Your task to perform on an android device: check data usage Image 0: 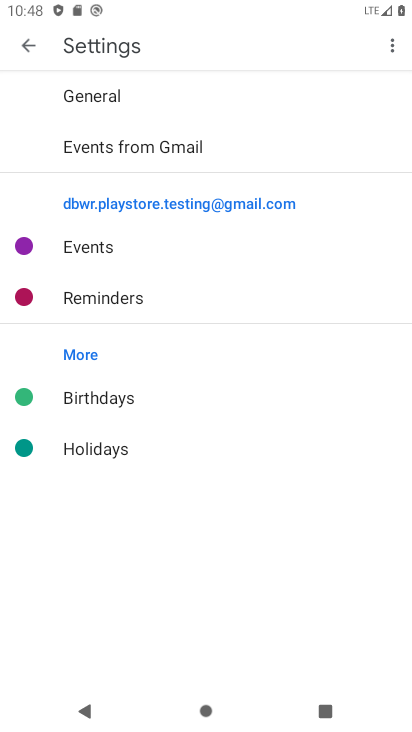
Step 0: press home button
Your task to perform on an android device: check data usage Image 1: 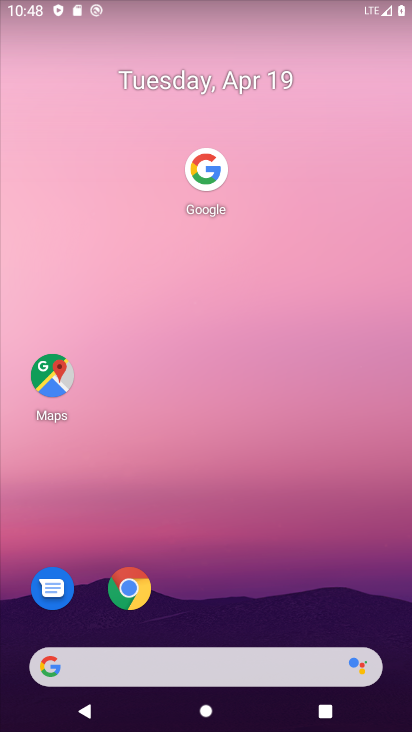
Step 1: drag from (216, 608) to (258, 1)
Your task to perform on an android device: check data usage Image 2: 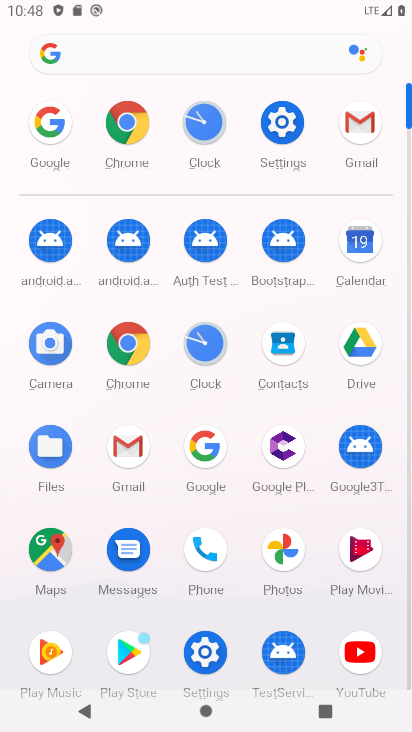
Step 2: click (288, 119)
Your task to perform on an android device: check data usage Image 3: 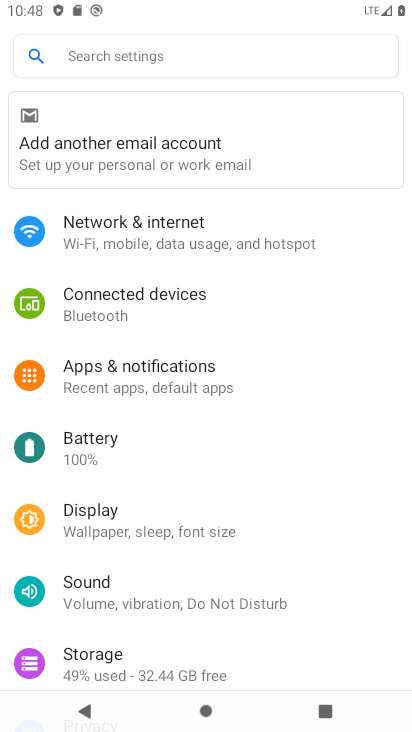
Step 3: click (139, 228)
Your task to perform on an android device: check data usage Image 4: 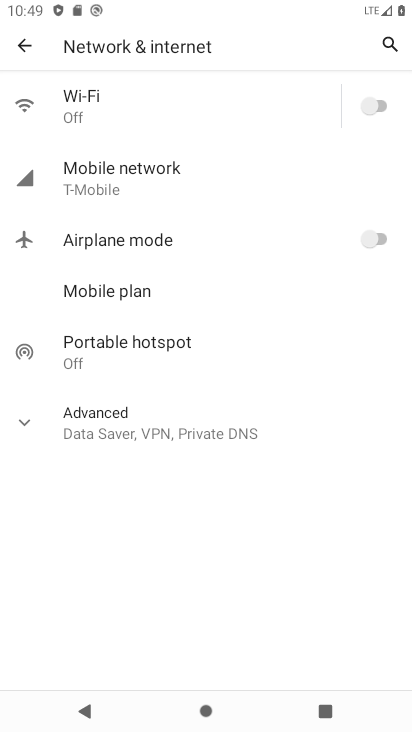
Step 4: click (120, 167)
Your task to perform on an android device: check data usage Image 5: 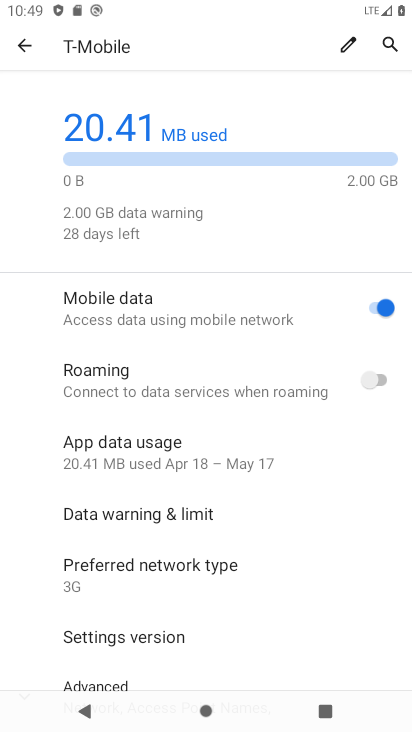
Step 5: task complete